Your task to perform on an android device: turn pop-ups on in chrome Image 0: 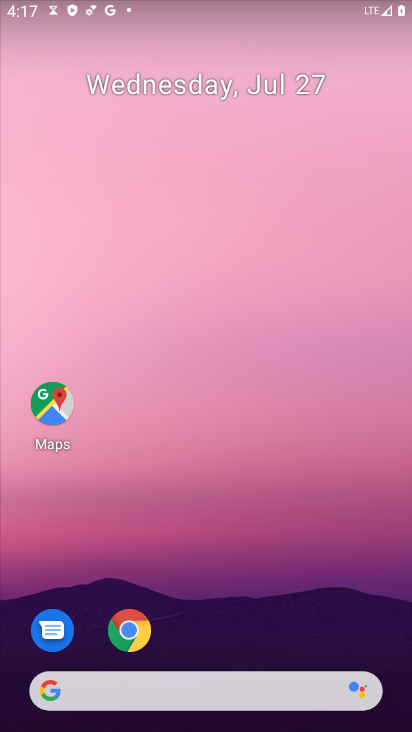
Step 0: click (138, 632)
Your task to perform on an android device: turn pop-ups on in chrome Image 1: 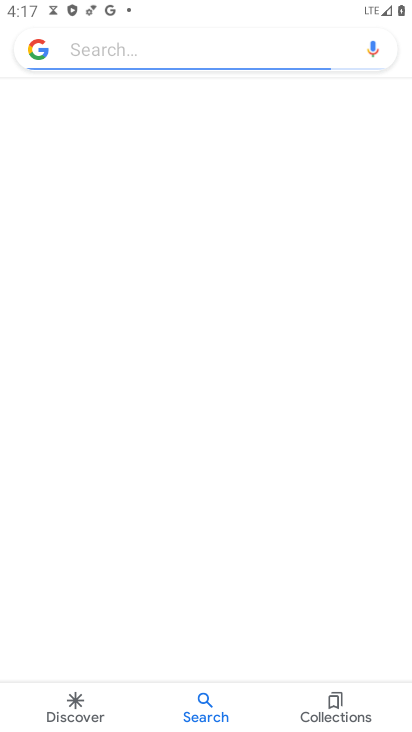
Step 1: press home button
Your task to perform on an android device: turn pop-ups on in chrome Image 2: 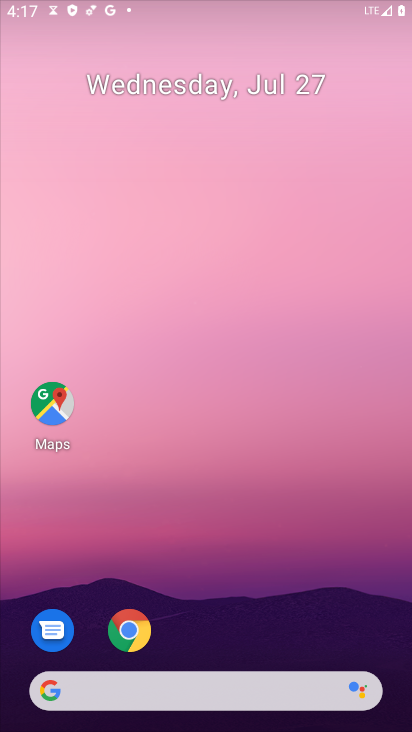
Step 2: drag from (213, 617) to (284, 19)
Your task to perform on an android device: turn pop-ups on in chrome Image 3: 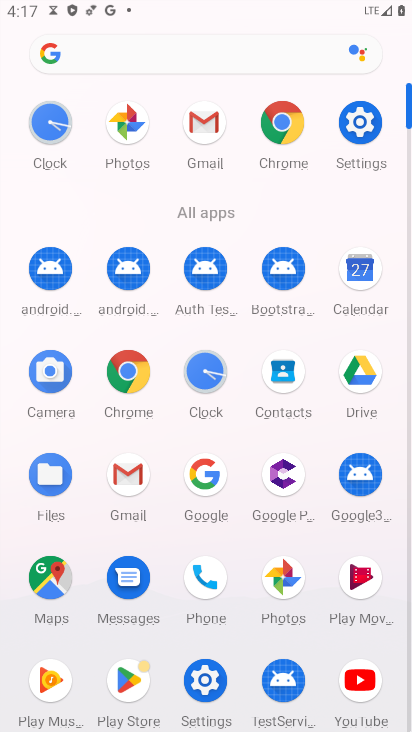
Step 3: click (136, 381)
Your task to perform on an android device: turn pop-ups on in chrome Image 4: 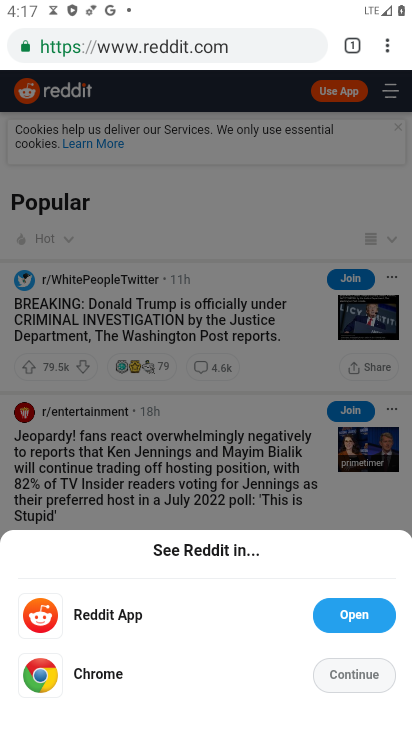
Step 4: click (386, 44)
Your task to perform on an android device: turn pop-ups on in chrome Image 5: 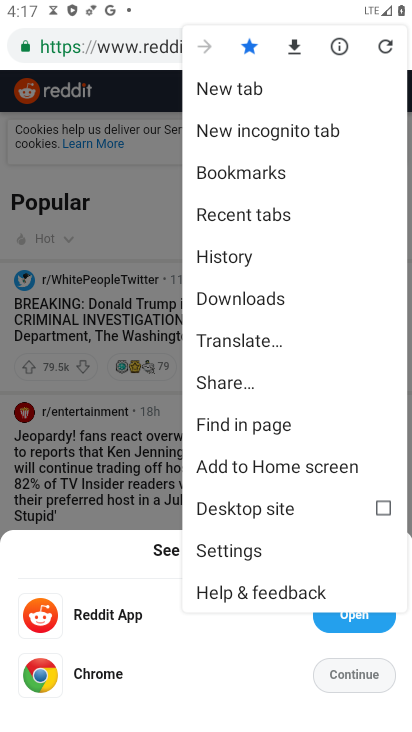
Step 5: click (242, 551)
Your task to perform on an android device: turn pop-ups on in chrome Image 6: 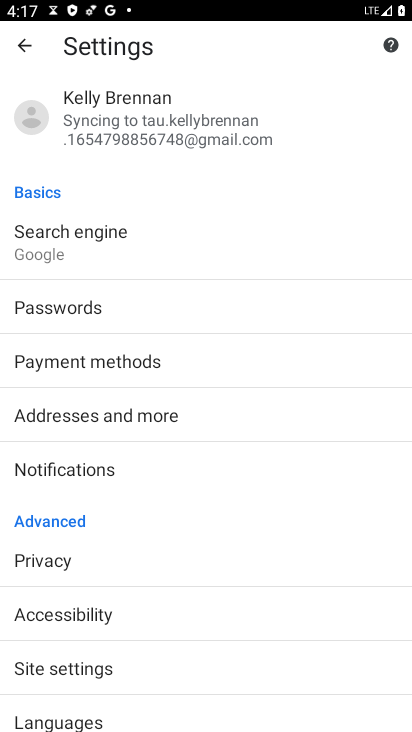
Step 6: drag from (140, 501) to (147, 302)
Your task to perform on an android device: turn pop-ups on in chrome Image 7: 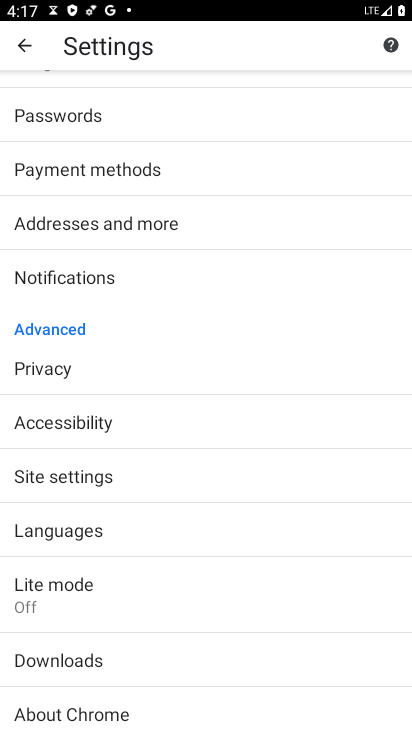
Step 7: click (68, 473)
Your task to perform on an android device: turn pop-ups on in chrome Image 8: 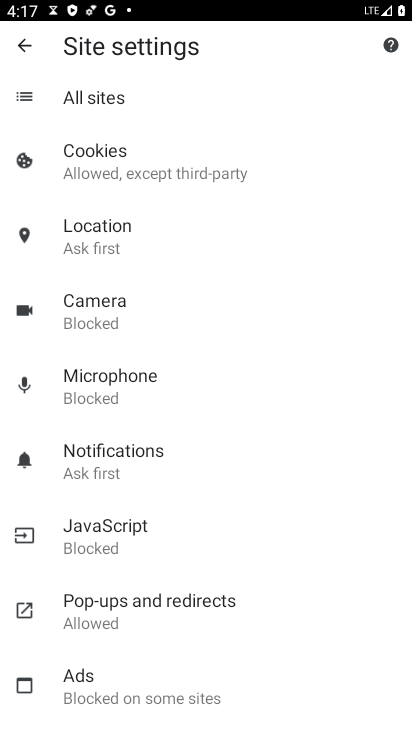
Step 8: click (125, 615)
Your task to perform on an android device: turn pop-ups on in chrome Image 9: 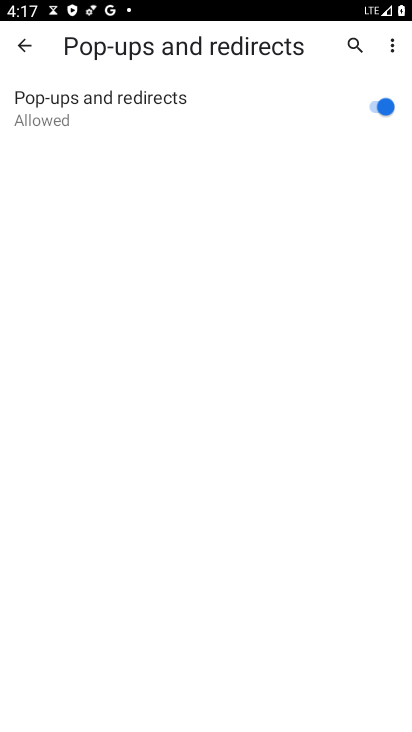
Step 9: task complete